Your task to perform on an android device: Open Google Chrome Image 0: 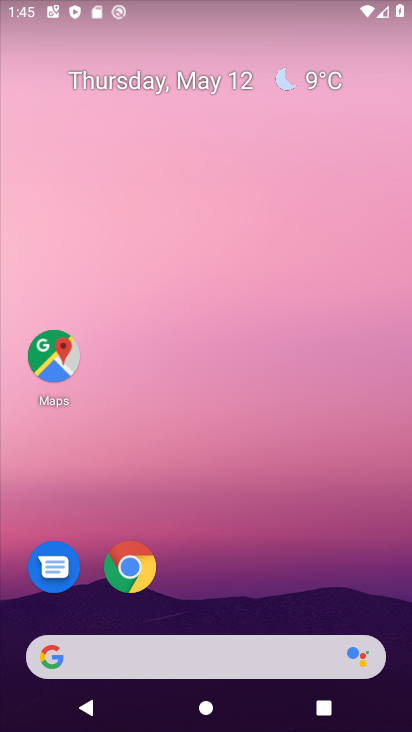
Step 0: drag from (259, 545) to (334, 52)
Your task to perform on an android device: Open Google Chrome Image 1: 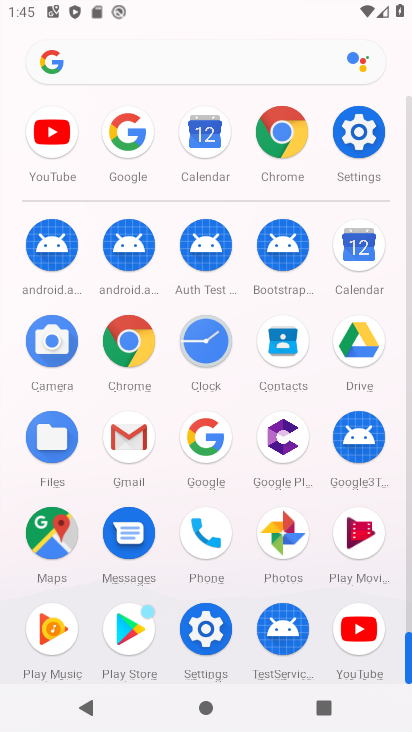
Step 1: click (288, 171)
Your task to perform on an android device: Open Google Chrome Image 2: 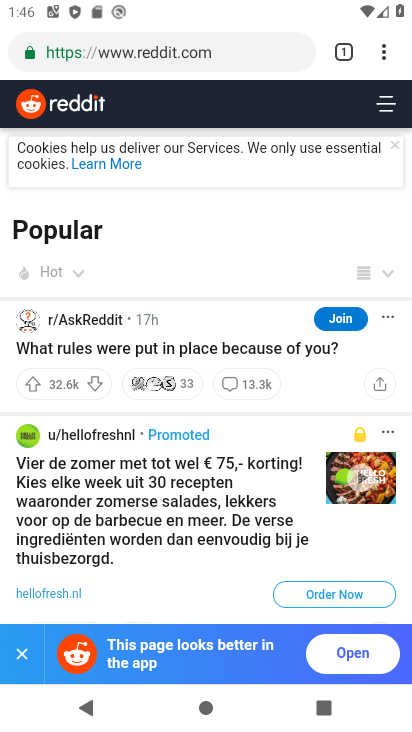
Step 2: click (383, 50)
Your task to perform on an android device: Open Google Chrome Image 3: 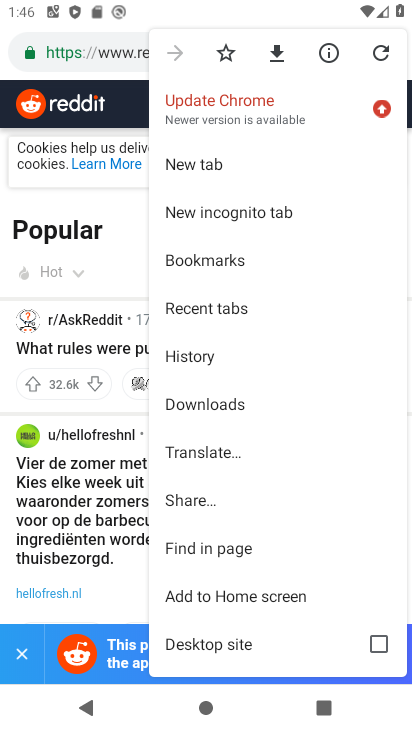
Step 3: task complete